Your task to perform on an android device: Do I have any events tomorrow? Image 0: 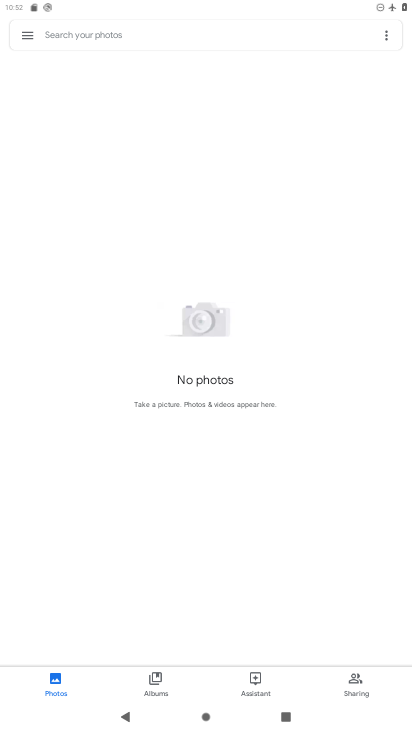
Step 0: press home button
Your task to perform on an android device: Do I have any events tomorrow? Image 1: 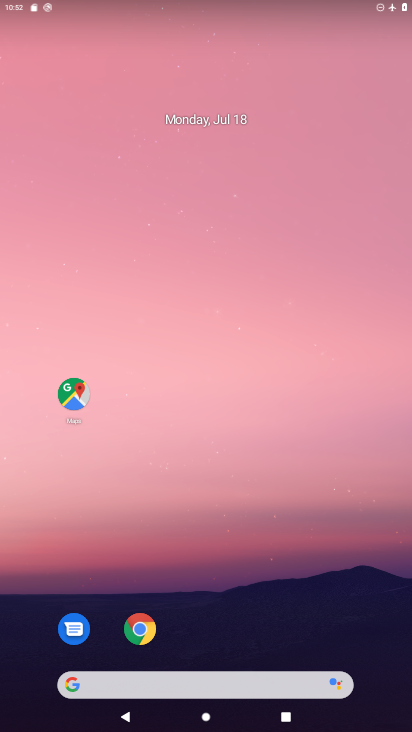
Step 1: click (274, 78)
Your task to perform on an android device: Do I have any events tomorrow? Image 2: 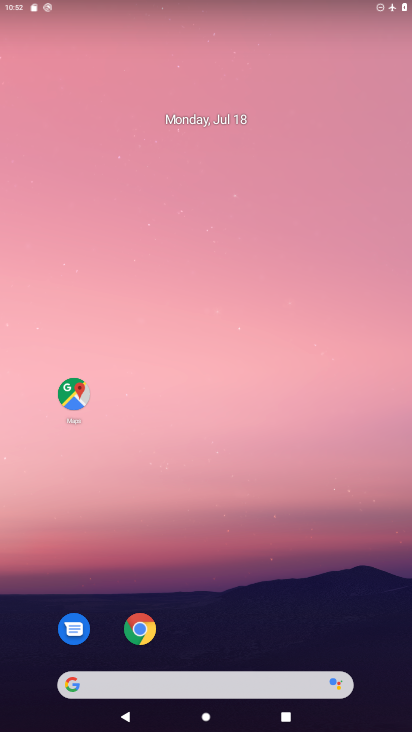
Step 2: drag from (351, 471) to (336, 54)
Your task to perform on an android device: Do I have any events tomorrow? Image 3: 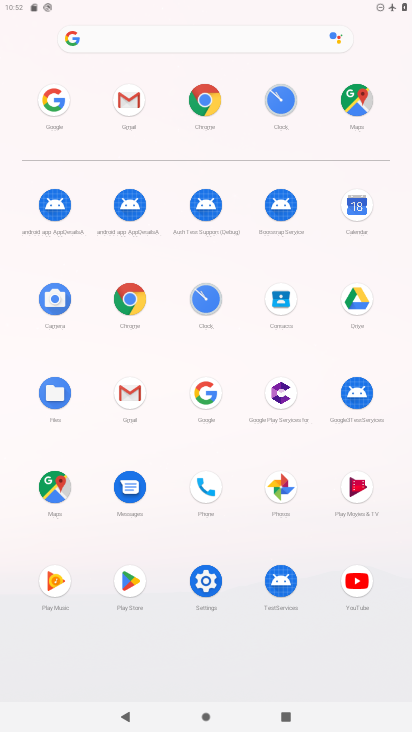
Step 3: click (362, 205)
Your task to perform on an android device: Do I have any events tomorrow? Image 4: 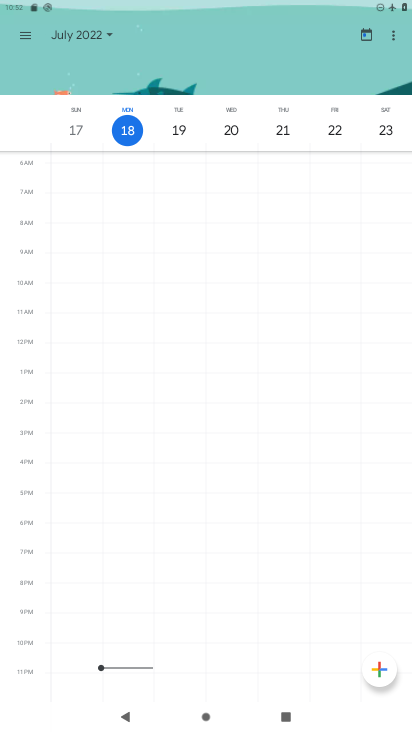
Step 4: click (185, 133)
Your task to perform on an android device: Do I have any events tomorrow? Image 5: 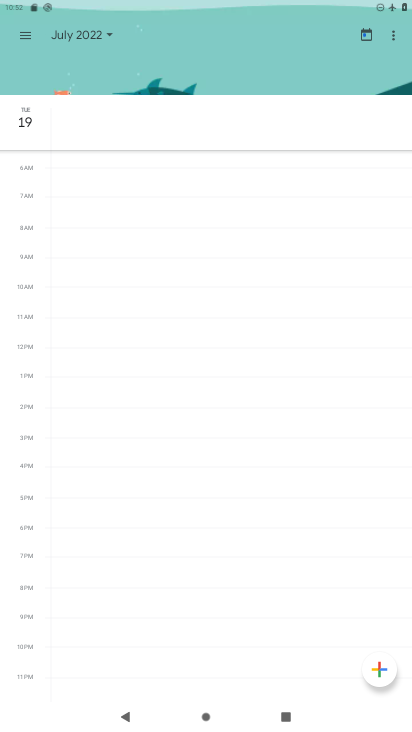
Step 5: task complete